Your task to perform on an android device: What's the price of the TCL TV? Image 0: 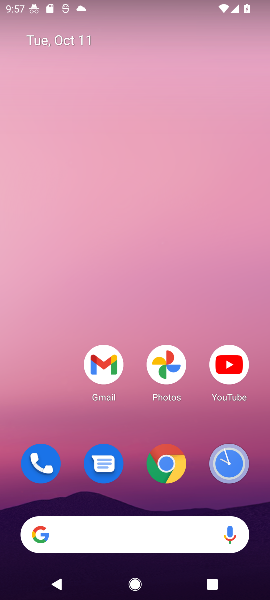
Step 0: drag from (107, 480) to (105, 83)
Your task to perform on an android device: What's the price of the TCL TV? Image 1: 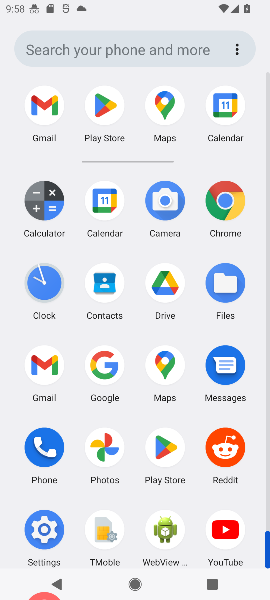
Step 1: click (91, 353)
Your task to perform on an android device: What's the price of the TCL TV? Image 2: 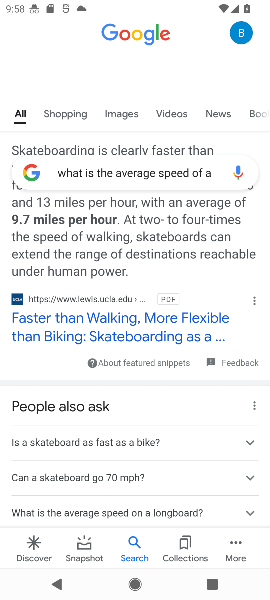
Step 2: click (107, 167)
Your task to perform on an android device: What's the price of the TCL TV? Image 3: 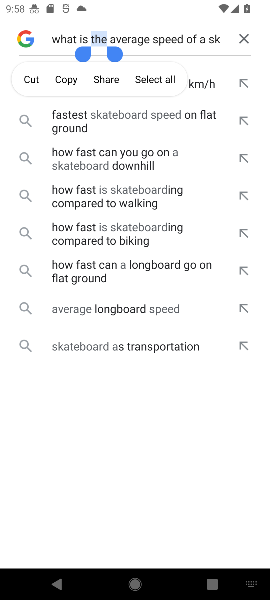
Step 3: click (247, 30)
Your task to perform on an android device: What's the price of the TCL TV? Image 4: 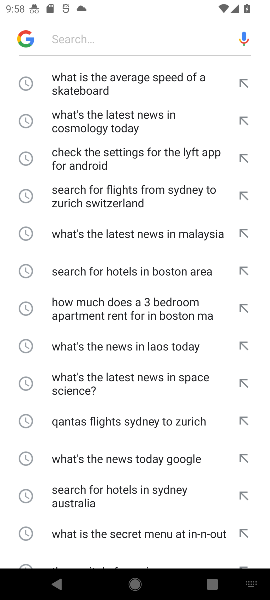
Step 4: click (112, 29)
Your task to perform on an android device: What's the price of the TCL TV? Image 5: 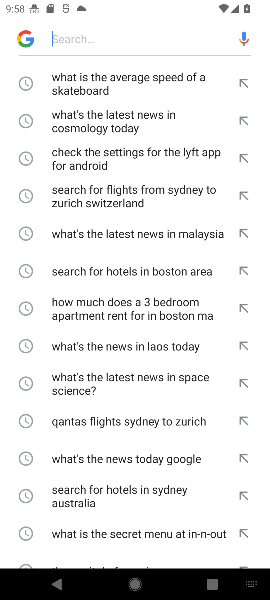
Step 5: type "What's the price of the TCL TV? "
Your task to perform on an android device: What's the price of the TCL TV? Image 6: 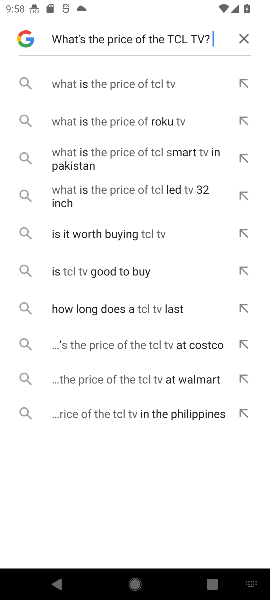
Step 6: click (154, 86)
Your task to perform on an android device: What's the price of the TCL TV? Image 7: 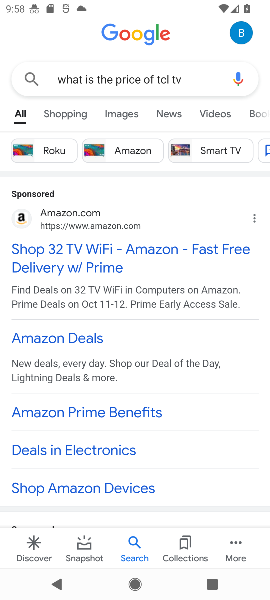
Step 7: drag from (126, 443) to (128, 198)
Your task to perform on an android device: What's the price of the TCL TV? Image 8: 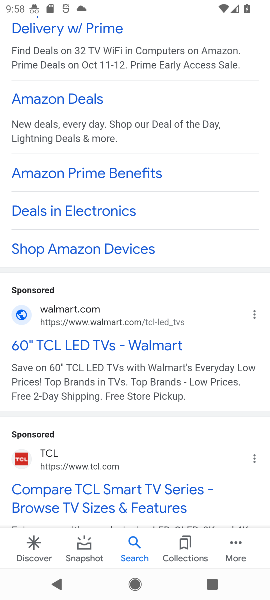
Step 8: click (113, 422)
Your task to perform on an android device: What's the price of the TCL TV? Image 9: 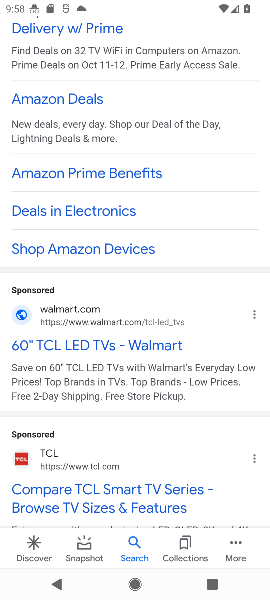
Step 9: click (113, 417)
Your task to perform on an android device: What's the price of the TCL TV? Image 10: 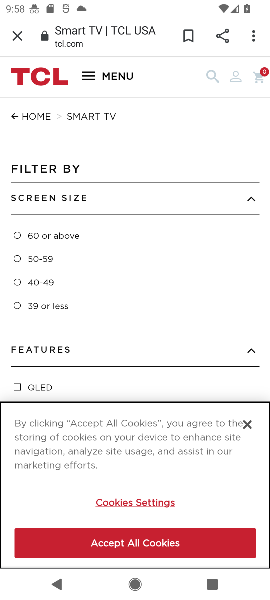
Step 10: drag from (109, 366) to (103, 120)
Your task to perform on an android device: What's the price of the TCL TV? Image 11: 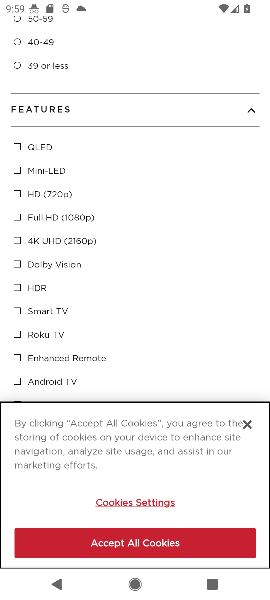
Step 11: drag from (165, 396) to (159, 45)
Your task to perform on an android device: What's the price of the TCL TV? Image 12: 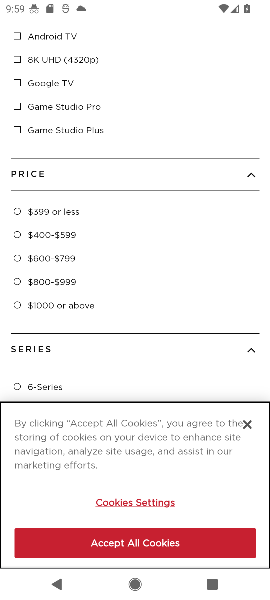
Step 12: press back button
Your task to perform on an android device: What's the price of the TCL TV? Image 13: 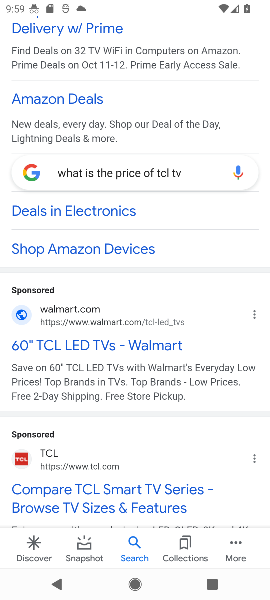
Step 13: drag from (122, 376) to (133, 161)
Your task to perform on an android device: What's the price of the TCL TV? Image 14: 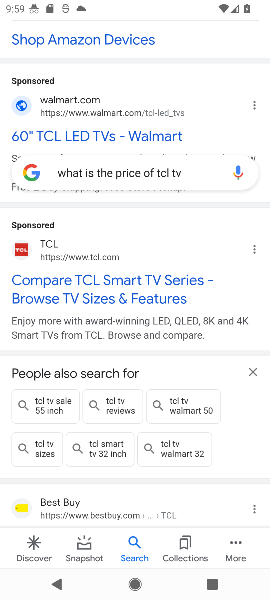
Step 14: click (110, 298)
Your task to perform on an android device: What's the price of the TCL TV? Image 15: 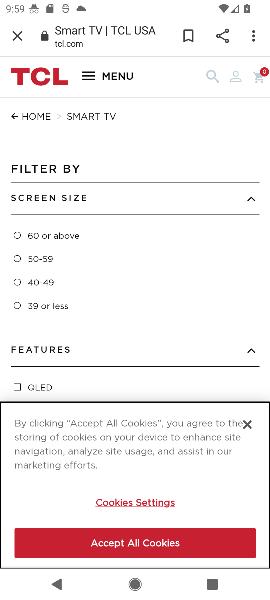
Step 15: task complete